Your task to perform on an android device: Open the web browser Image 0: 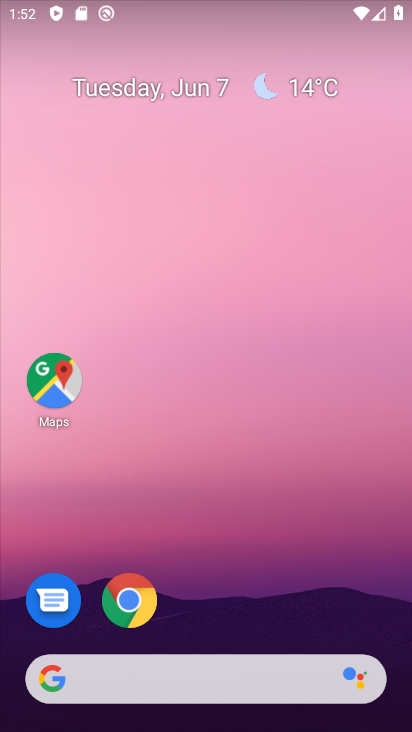
Step 0: drag from (200, 659) to (261, 185)
Your task to perform on an android device: Open the web browser Image 1: 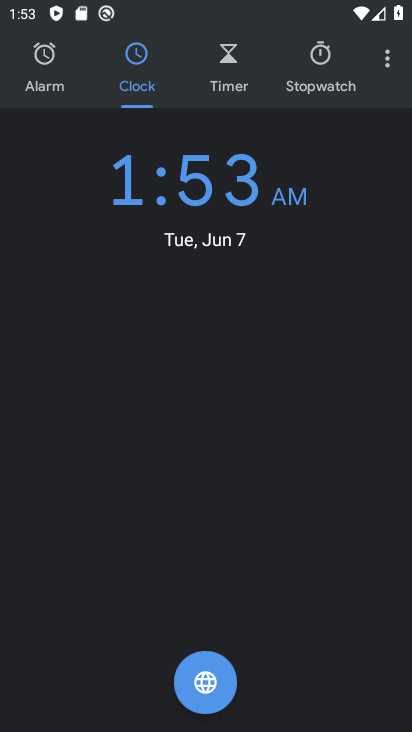
Step 1: press home button
Your task to perform on an android device: Open the web browser Image 2: 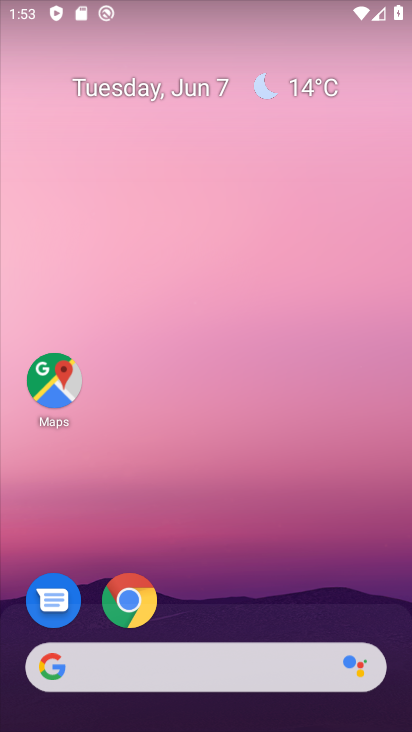
Step 2: click (140, 603)
Your task to perform on an android device: Open the web browser Image 3: 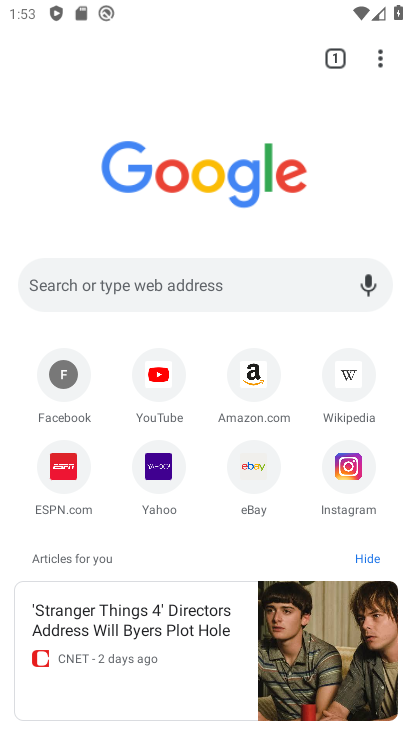
Step 3: task complete